Your task to perform on an android device: Open display settings Image 0: 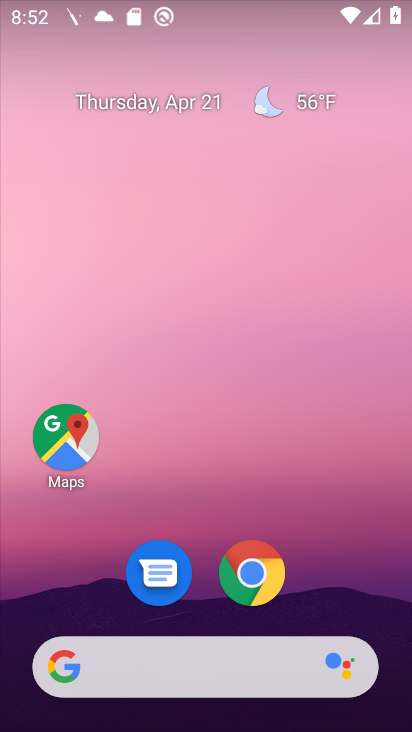
Step 0: drag from (194, 488) to (222, 115)
Your task to perform on an android device: Open display settings Image 1: 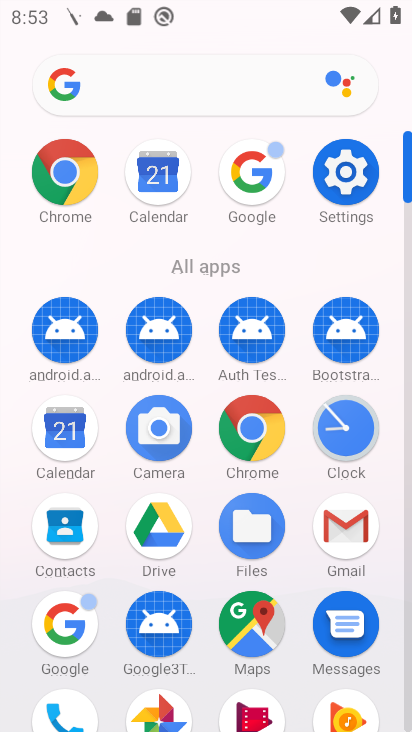
Step 1: click (350, 169)
Your task to perform on an android device: Open display settings Image 2: 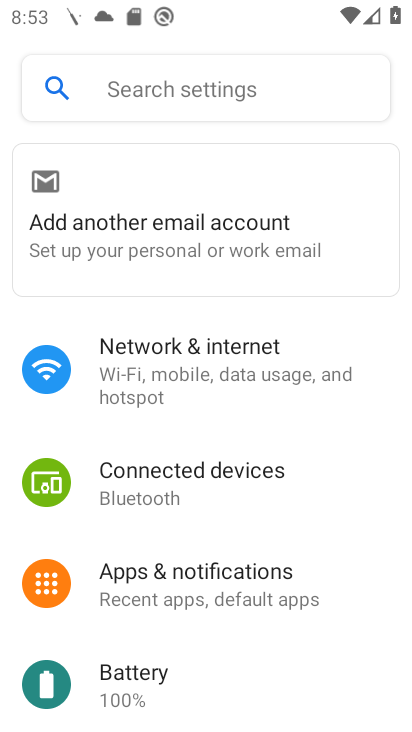
Step 2: drag from (169, 520) to (256, 353)
Your task to perform on an android device: Open display settings Image 3: 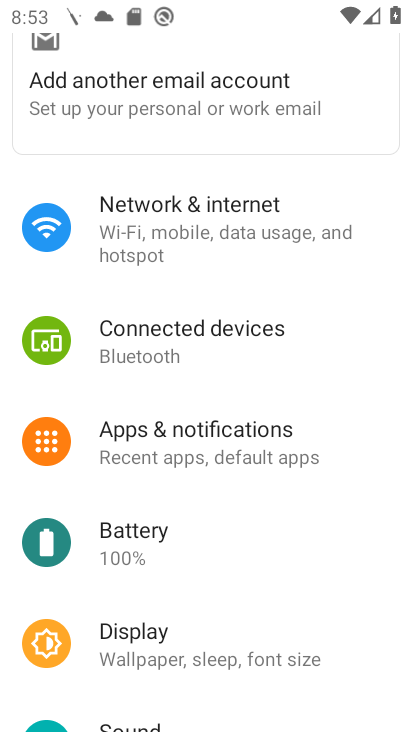
Step 3: drag from (200, 519) to (275, 400)
Your task to perform on an android device: Open display settings Image 4: 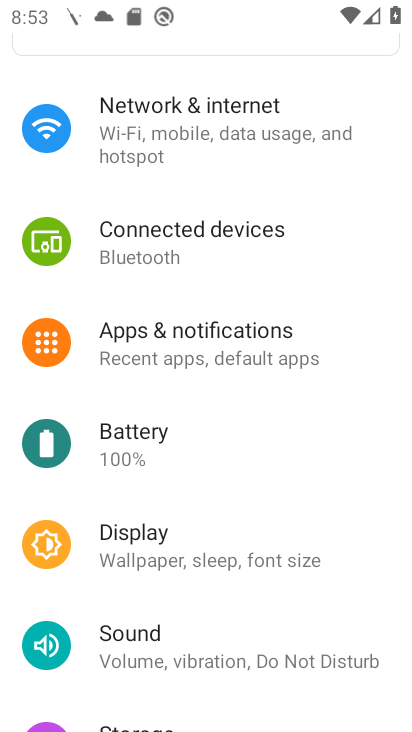
Step 4: click (174, 555)
Your task to perform on an android device: Open display settings Image 5: 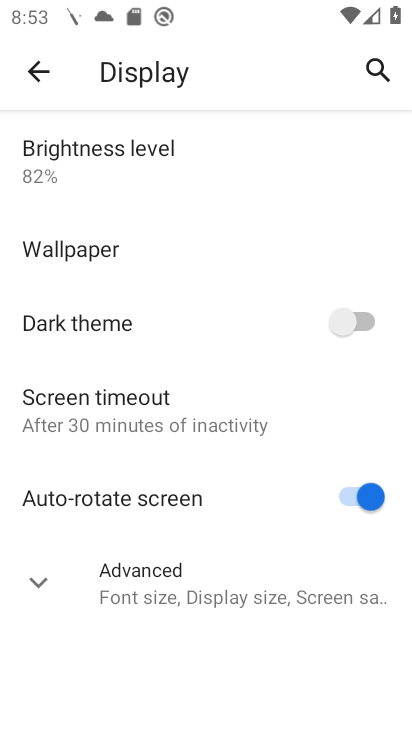
Step 5: task complete